Your task to perform on an android device: change keyboard looks Image 0: 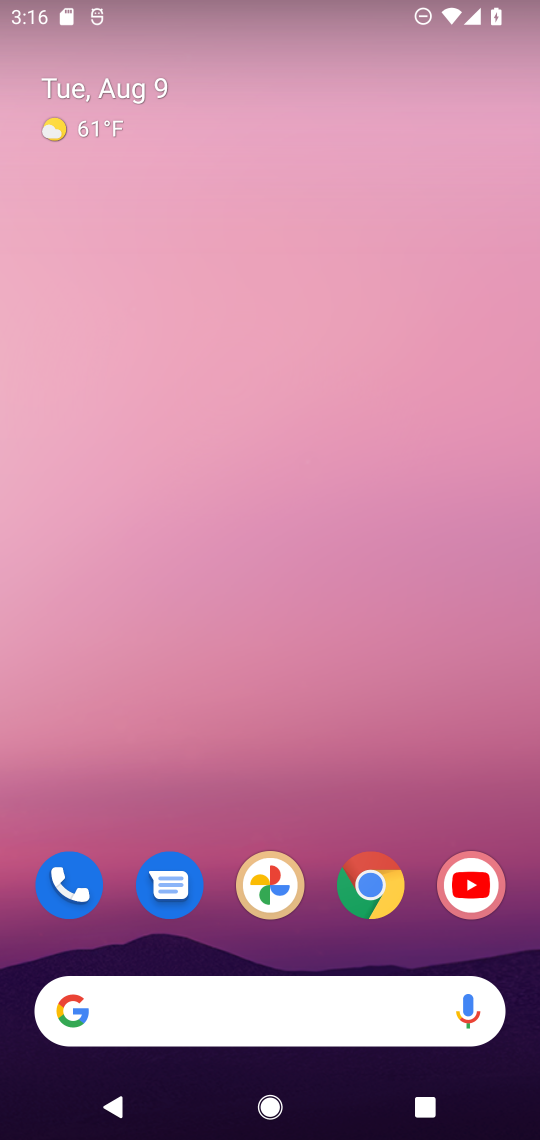
Step 0: drag from (321, 749) to (314, 223)
Your task to perform on an android device: change keyboard looks Image 1: 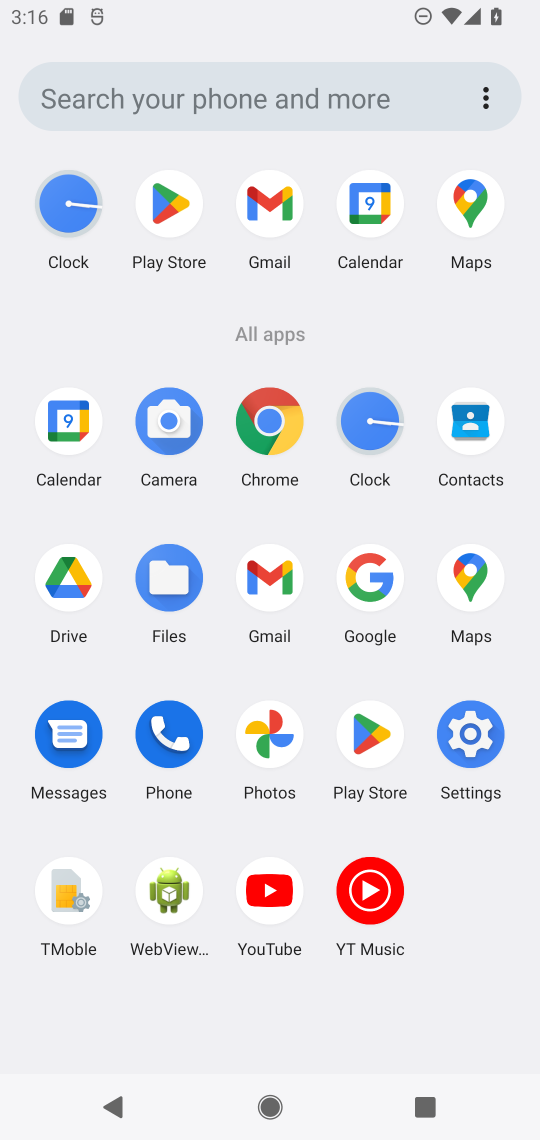
Step 1: click (466, 745)
Your task to perform on an android device: change keyboard looks Image 2: 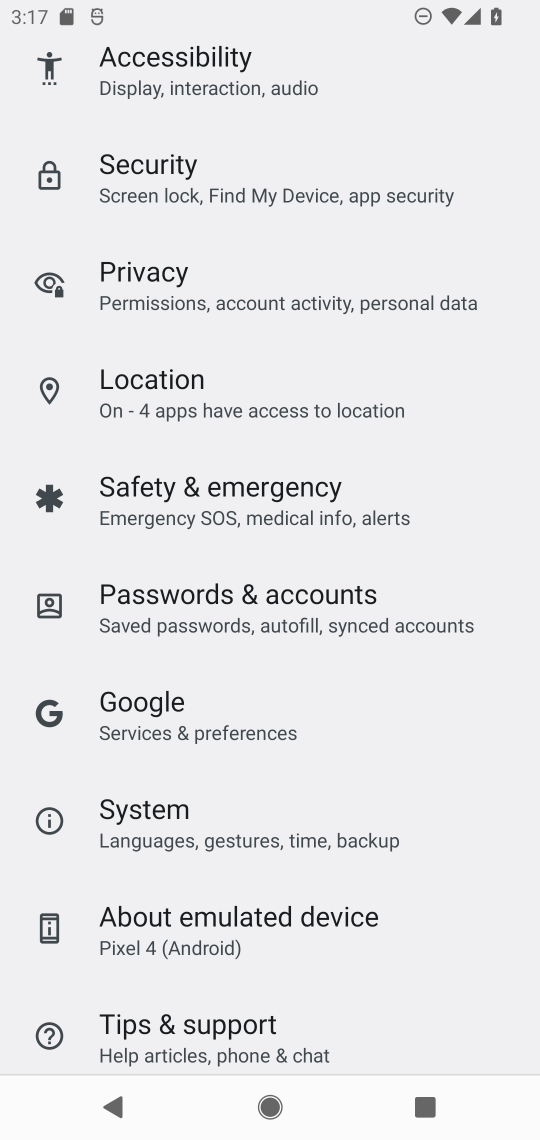
Step 2: task complete